Your task to perform on an android device: Go to eBay Image 0: 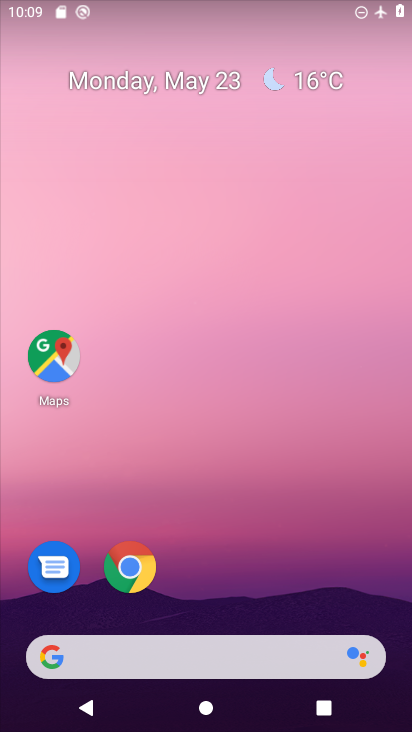
Step 0: drag from (205, 611) to (201, 32)
Your task to perform on an android device: Go to eBay Image 1: 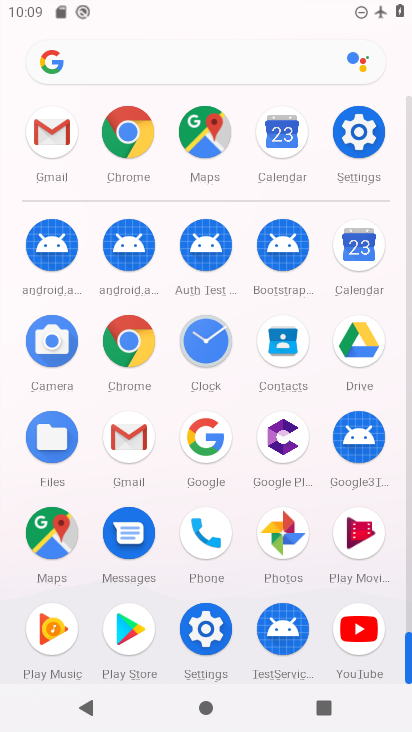
Step 1: click (204, 41)
Your task to perform on an android device: Go to eBay Image 2: 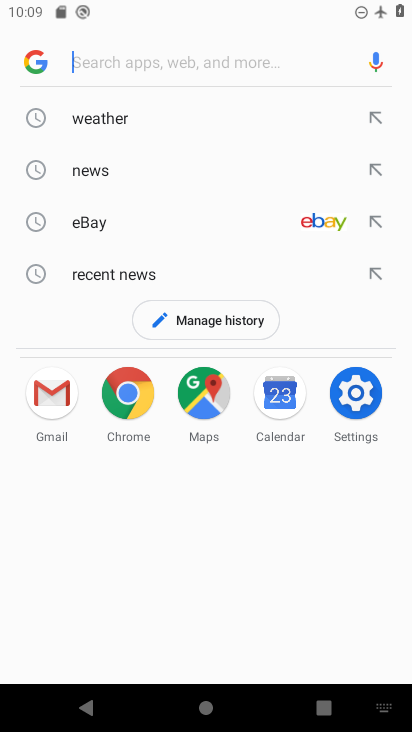
Step 2: click (142, 230)
Your task to perform on an android device: Go to eBay Image 3: 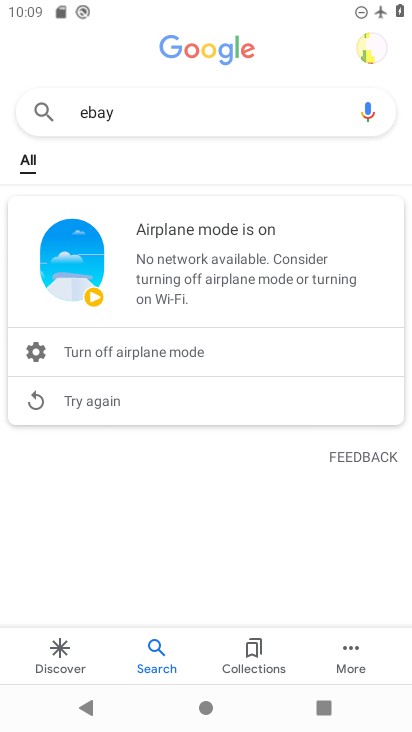
Step 3: task complete